Your task to perform on an android device: Search for vegetarian restaurants on Maps Image 0: 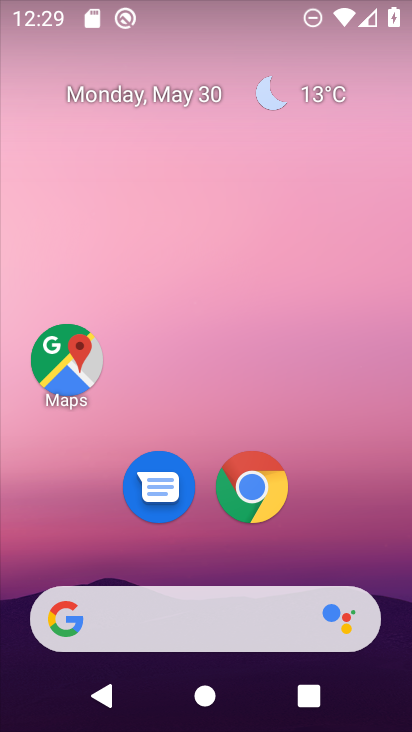
Step 0: click (51, 370)
Your task to perform on an android device: Search for vegetarian restaurants on Maps Image 1: 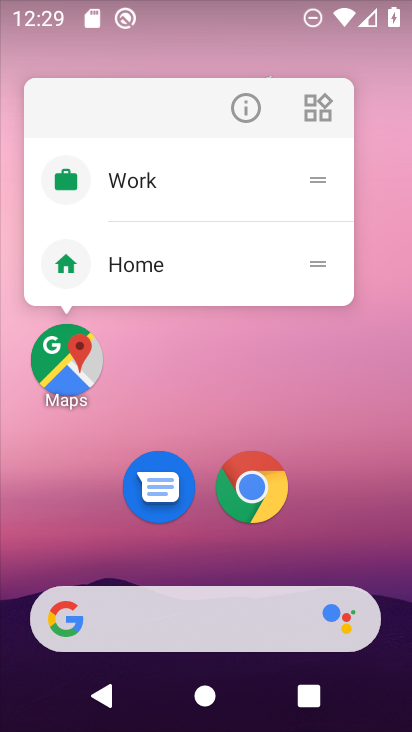
Step 1: click (50, 358)
Your task to perform on an android device: Search for vegetarian restaurants on Maps Image 2: 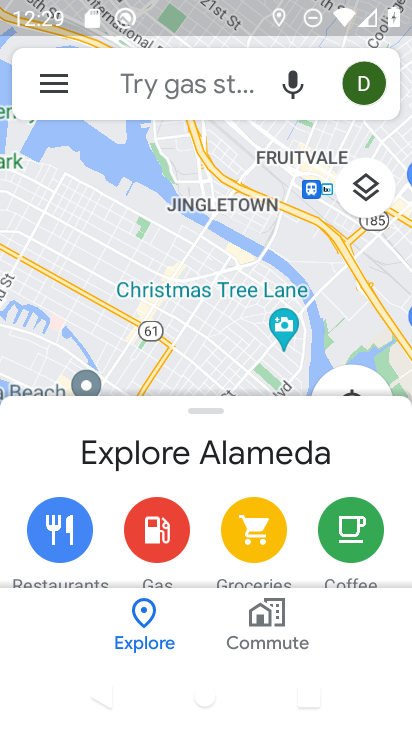
Step 2: click (240, 82)
Your task to perform on an android device: Search for vegetarian restaurants on Maps Image 3: 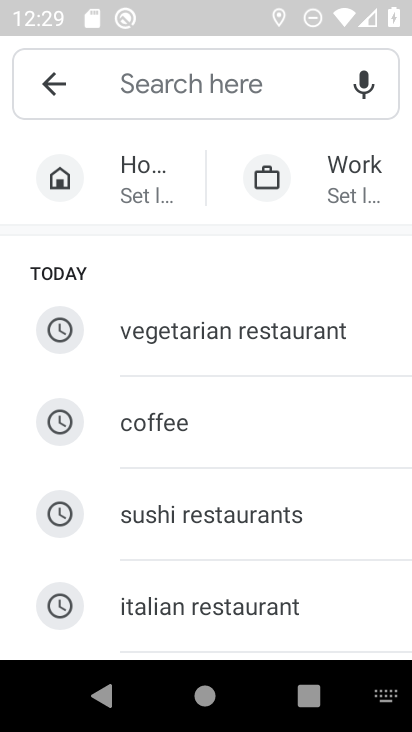
Step 3: type "vegetarian restaurants"
Your task to perform on an android device: Search for vegetarian restaurants on Maps Image 4: 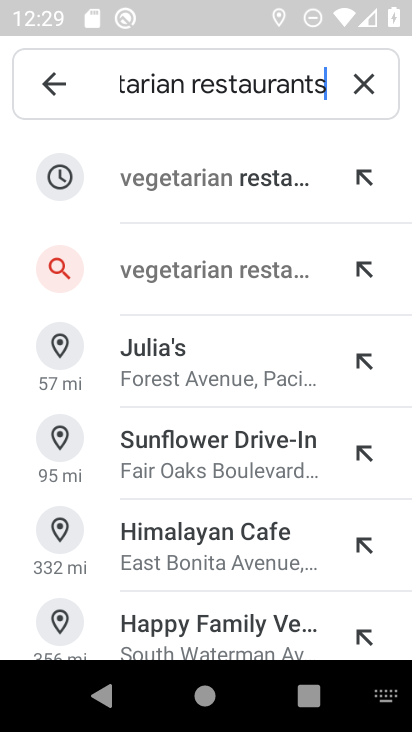
Step 4: click (178, 277)
Your task to perform on an android device: Search for vegetarian restaurants on Maps Image 5: 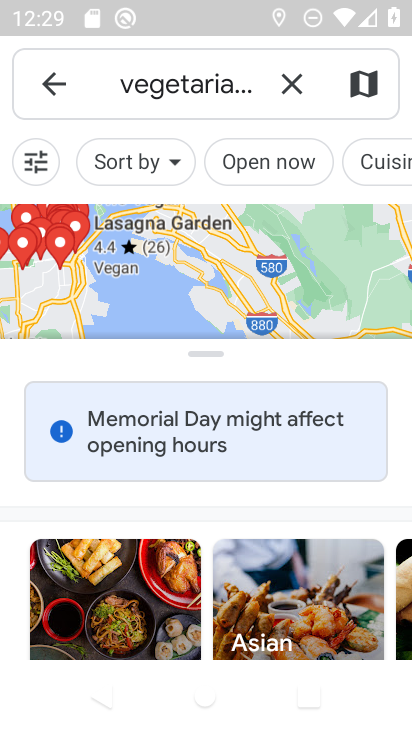
Step 5: task complete